Your task to perform on an android device: turn off airplane mode Image 0: 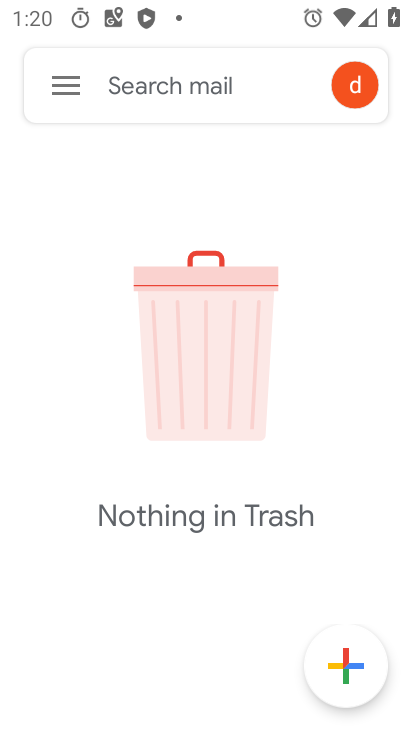
Step 0: press back button
Your task to perform on an android device: turn off airplane mode Image 1: 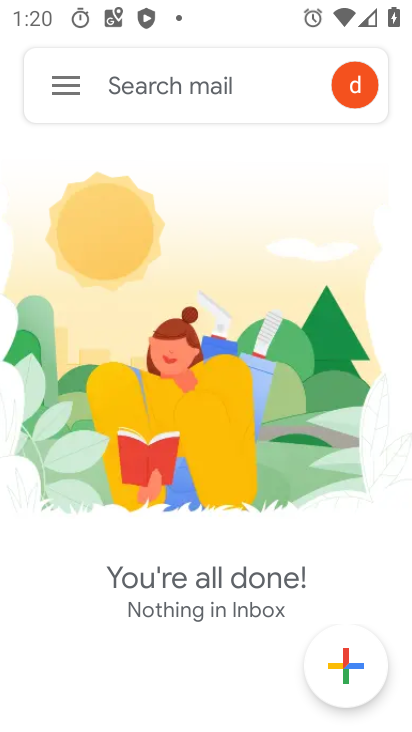
Step 1: task complete